Your task to perform on an android device: check google app version Image 0: 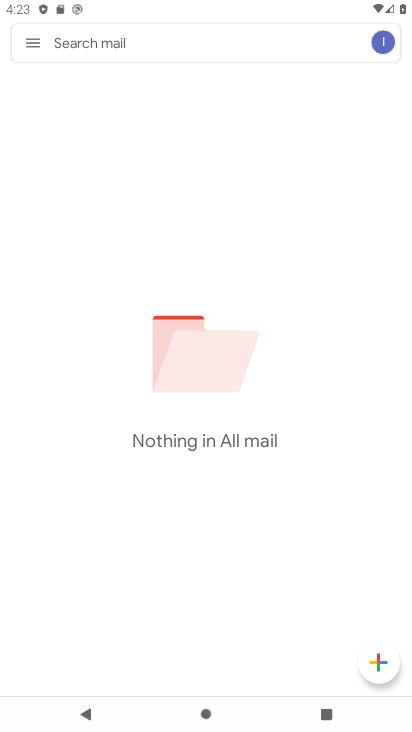
Step 0: press home button
Your task to perform on an android device: check google app version Image 1: 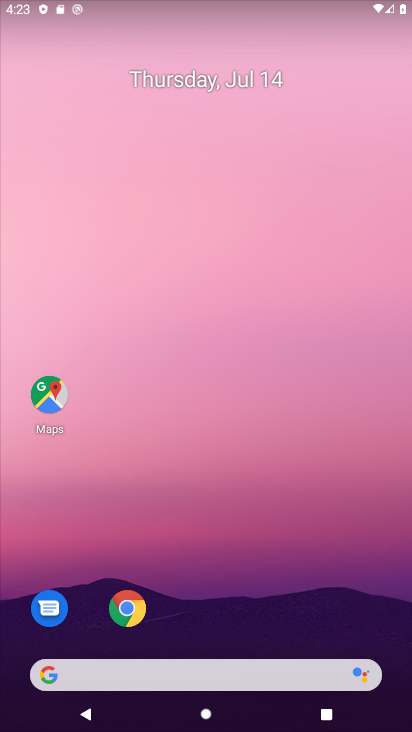
Step 1: drag from (241, 627) to (189, 292)
Your task to perform on an android device: check google app version Image 2: 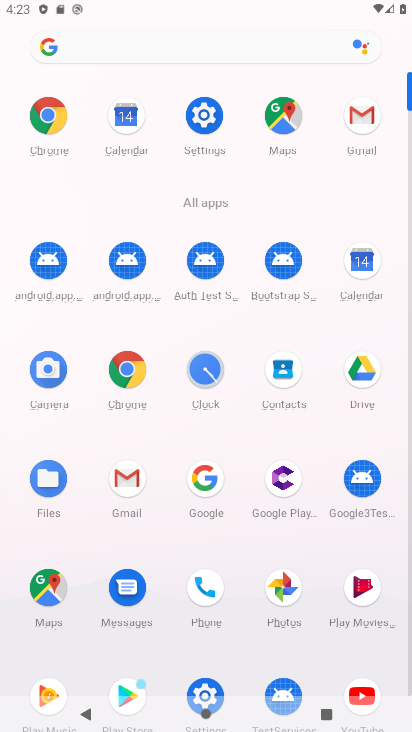
Step 2: click (217, 489)
Your task to perform on an android device: check google app version Image 3: 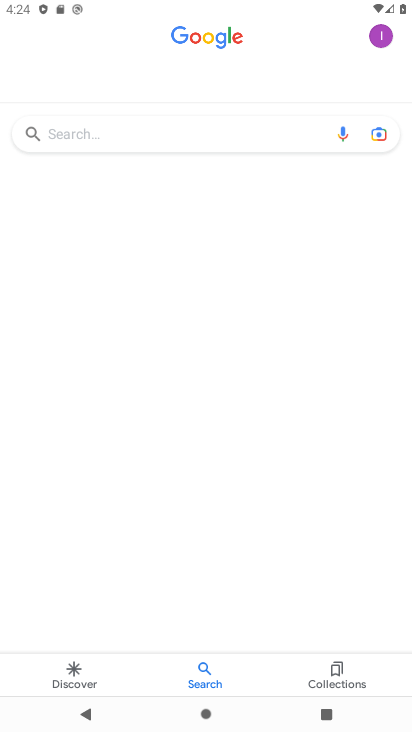
Step 3: click (378, 44)
Your task to perform on an android device: check google app version Image 4: 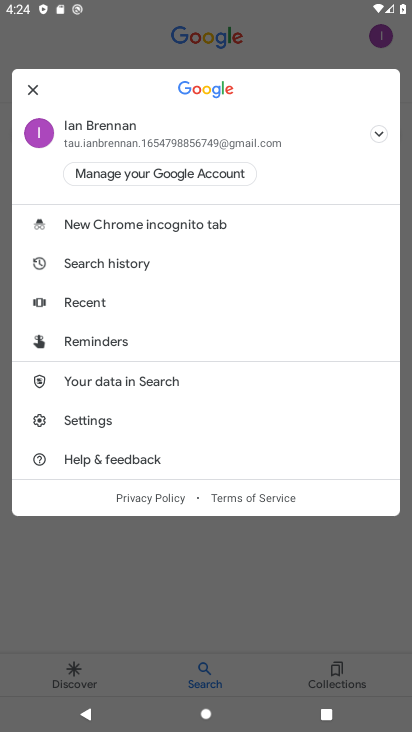
Step 4: click (66, 423)
Your task to perform on an android device: check google app version Image 5: 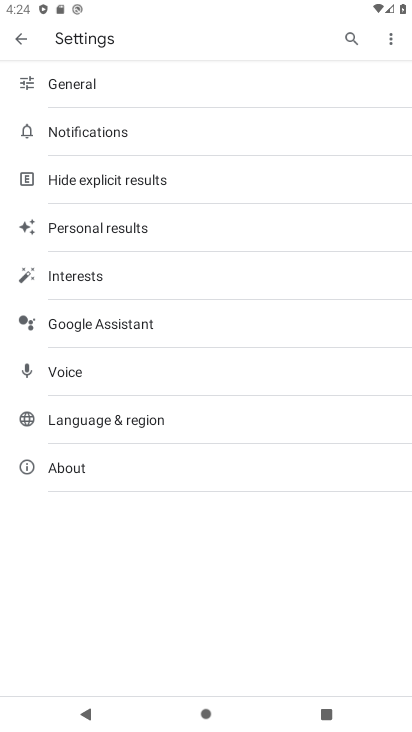
Step 5: click (100, 455)
Your task to perform on an android device: check google app version Image 6: 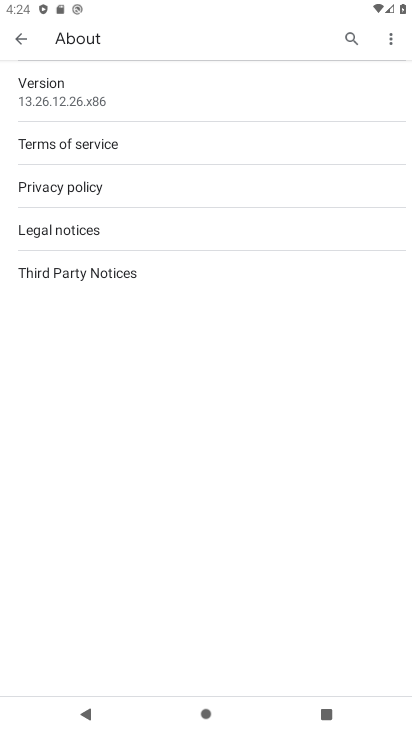
Step 6: click (78, 100)
Your task to perform on an android device: check google app version Image 7: 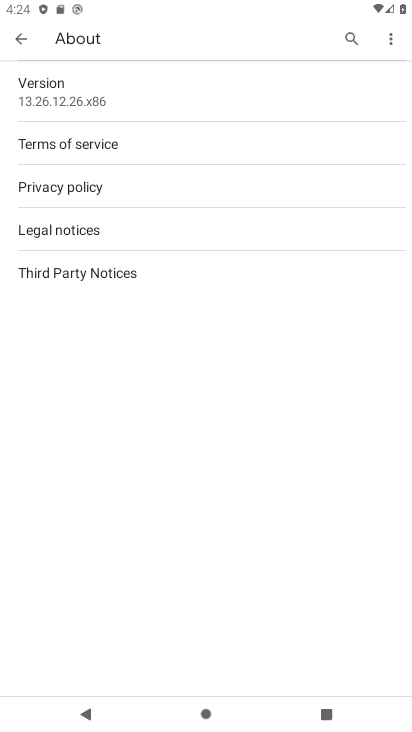
Step 7: click (80, 85)
Your task to perform on an android device: check google app version Image 8: 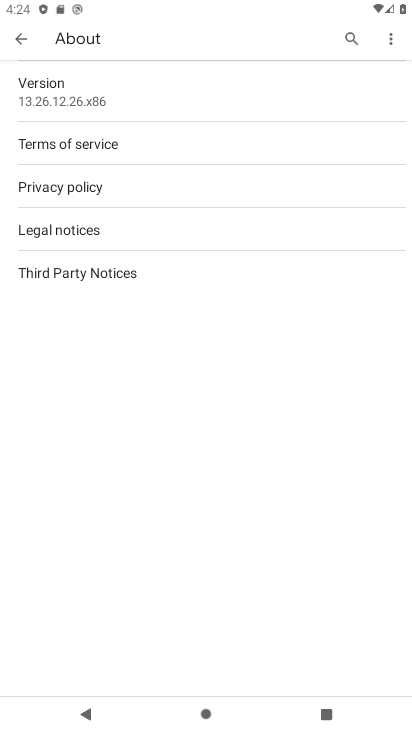
Step 8: task complete